Your task to perform on an android device: Open my contact list Image 0: 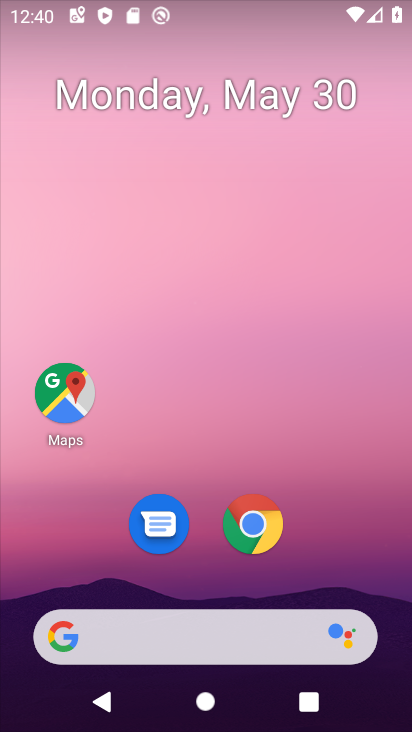
Step 0: drag from (285, 470) to (303, 21)
Your task to perform on an android device: Open my contact list Image 1: 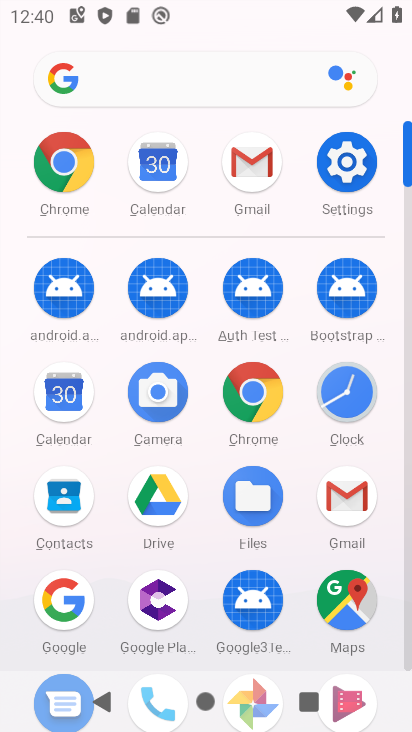
Step 1: click (60, 490)
Your task to perform on an android device: Open my contact list Image 2: 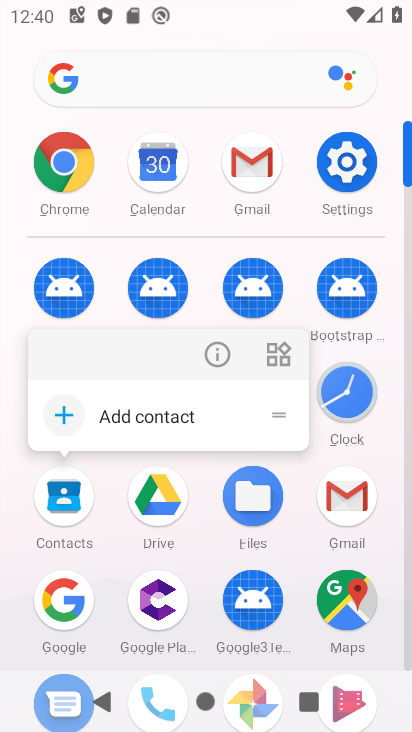
Step 2: click (60, 489)
Your task to perform on an android device: Open my contact list Image 3: 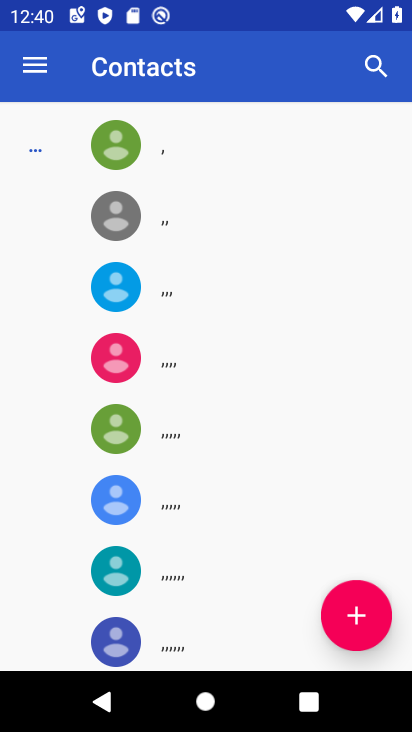
Step 3: task complete